Your task to perform on an android device: Go to privacy settings Image 0: 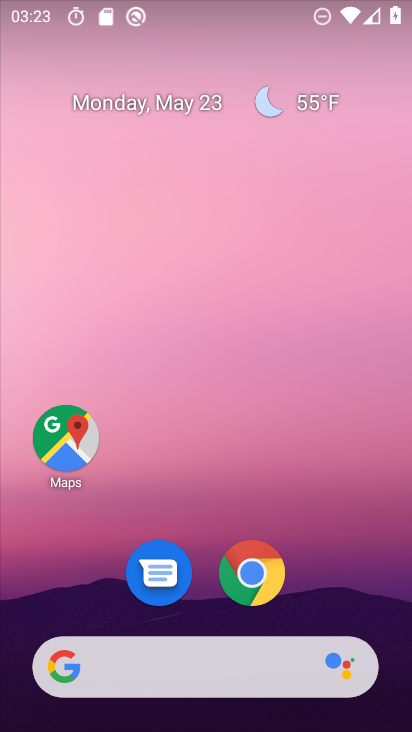
Step 0: drag from (342, 583) to (277, 64)
Your task to perform on an android device: Go to privacy settings Image 1: 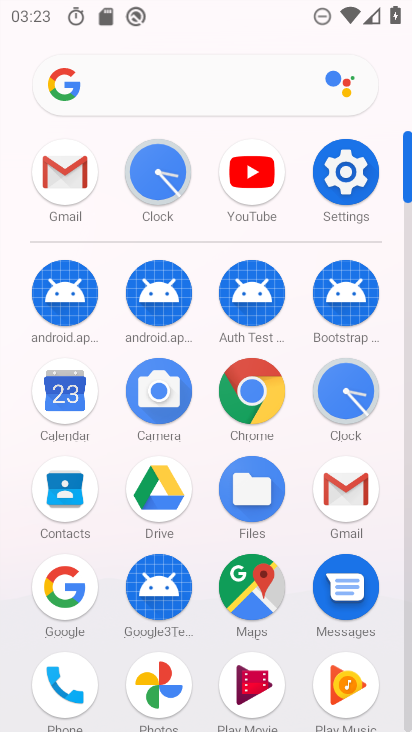
Step 1: click (343, 182)
Your task to perform on an android device: Go to privacy settings Image 2: 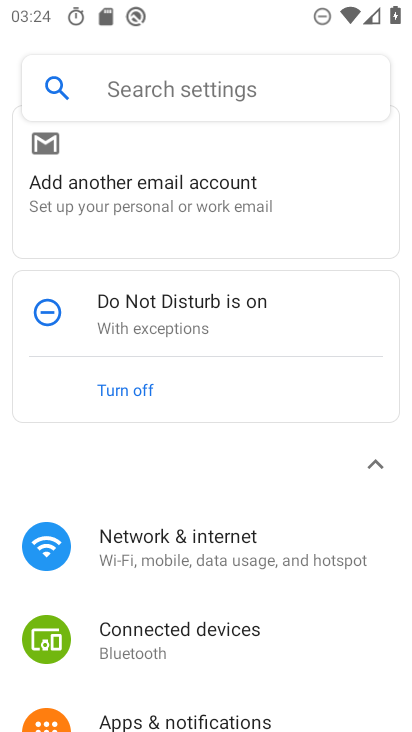
Step 2: drag from (297, 654) to (239, 147)
Your task to perform on an android device: Go to privacy settings Image 3: 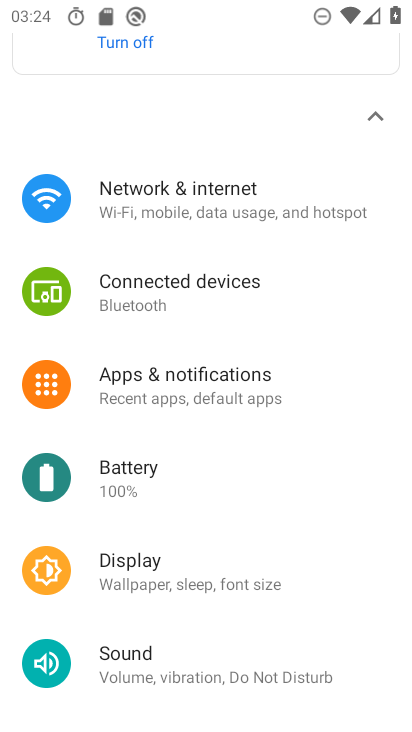
Step 3: drag from (258, 627) to (209, 198)
Your task to perform on an android device: Go to privacy settings Image 4: 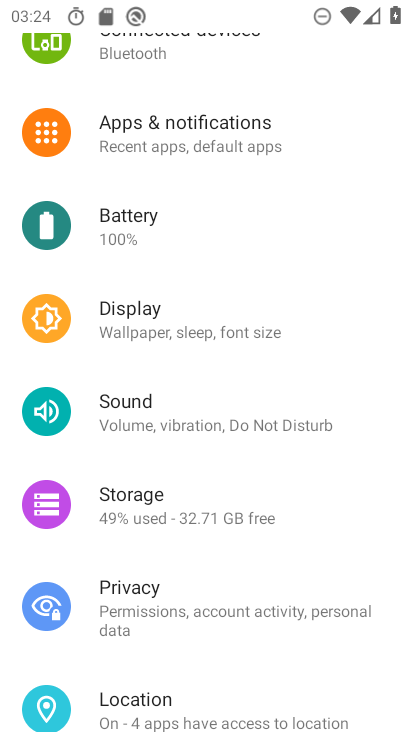
Step 4: click (227, 609)
Your task to perform on an android device: Go to privacy settings Image 5: 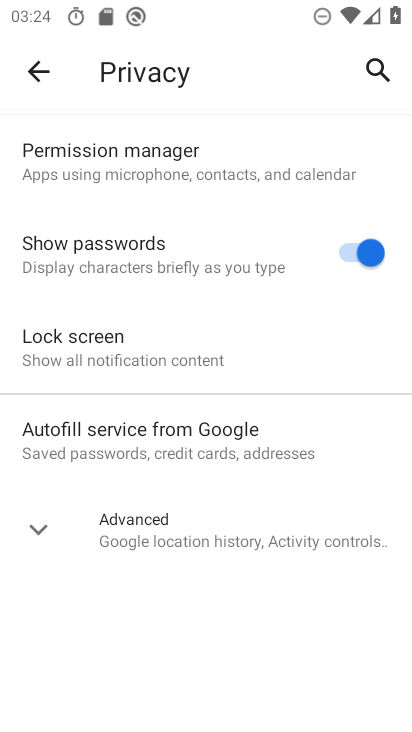
Step 5: task complete